Your task to perform on an android device: move an email to a new category in the gmail app Image 0: 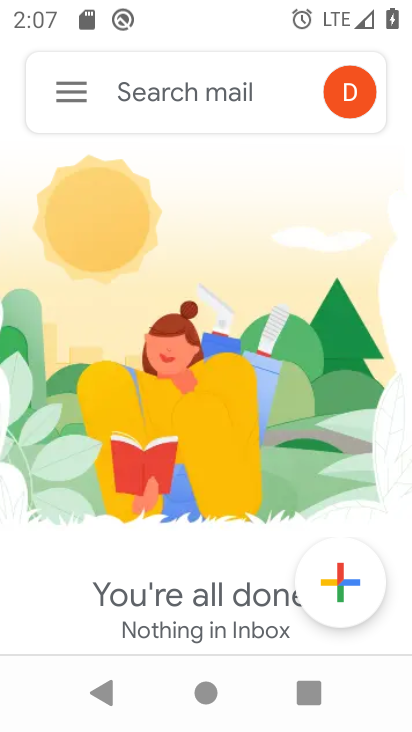
Step 0: press home button
Your task to perform on an android device: move an email to a new category in the gmail app Image 1: 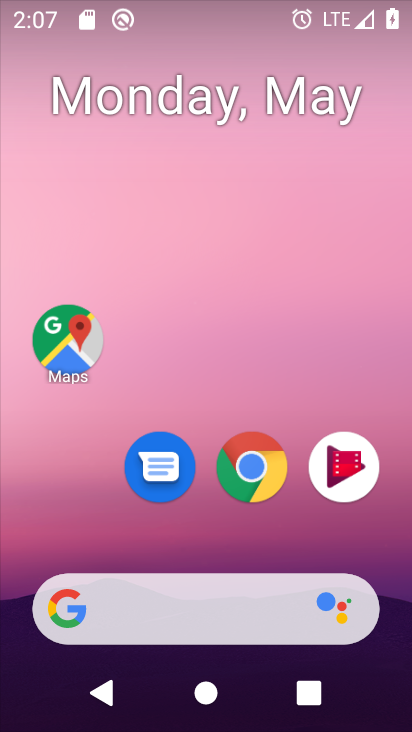
Step 1: drag from (270, 450) to (311, 104)
Your task to perform on an android device: move an email to a new category in the gmail app Image 2: 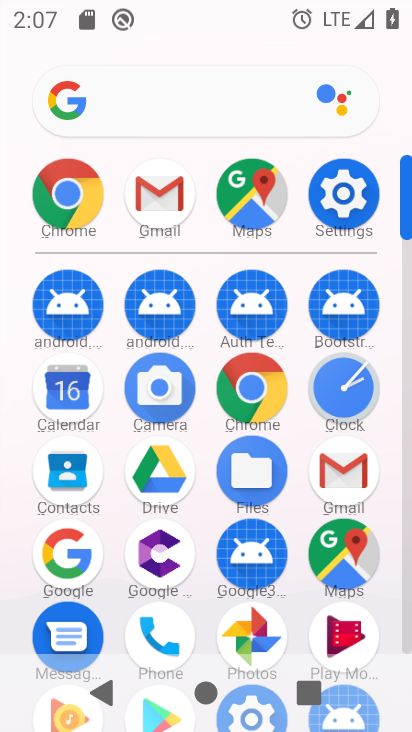
Step 2: click (328, 484)
Your task to perform on an android device: move an email to a new category in the gmail app Image 3: 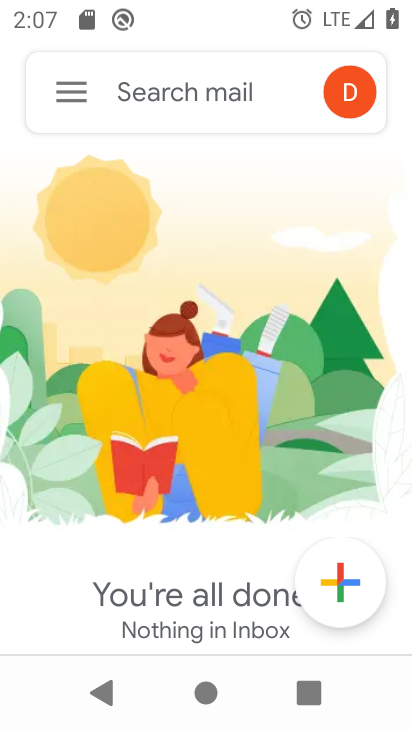
Step 3: click (52, 79)
Your task to perform on an android device: move an email to a new category in the gmail app Image 4: 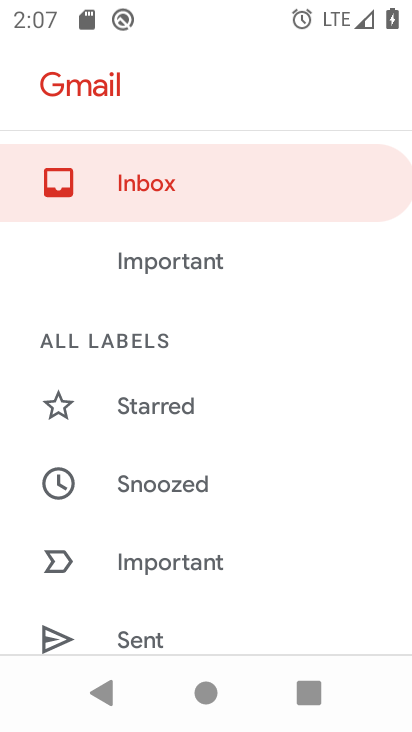
Step 4: drag from (176, 591) to (240, 403)
Your task to perform on an android device: move an email to a new category in the gmail app Image 5: 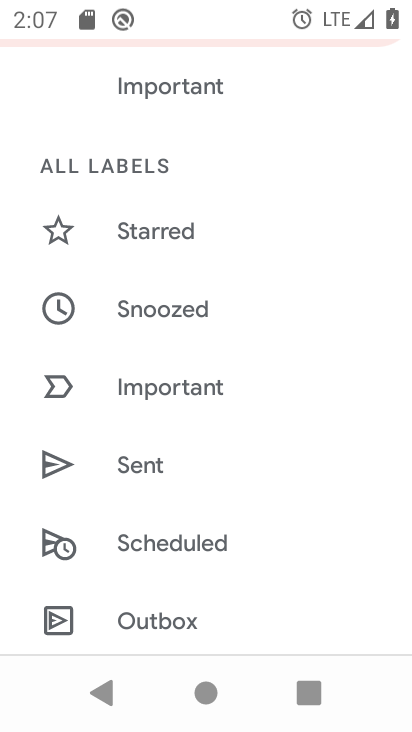
Step 5: drag from (181, 591) to (245, 285)
Your task to perform on an android device: move an email to a new category in the gmail app Image 6: 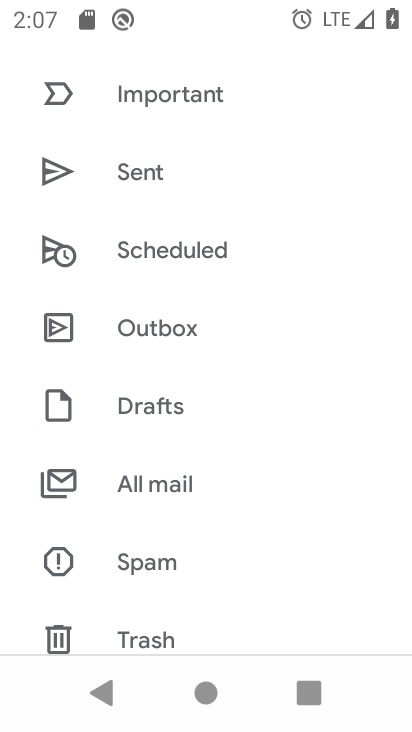
Step 6: click (168, 483)
Your task to perform on an android device: move an email to a new category in the gmail app Image 7: 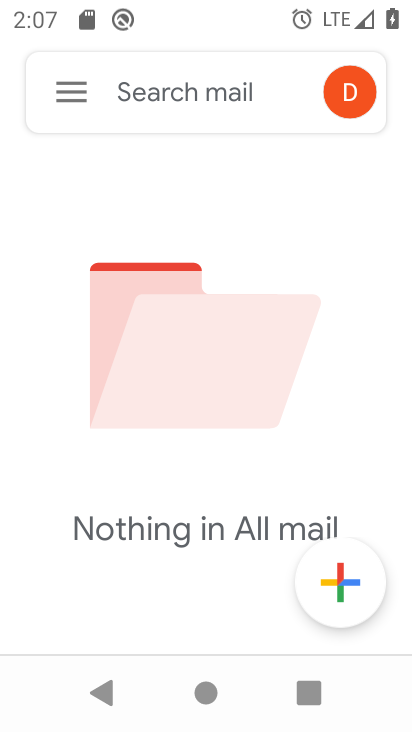
Step 7: task complete